Your task to perform on an android device: Open ESPN.com Image 0: 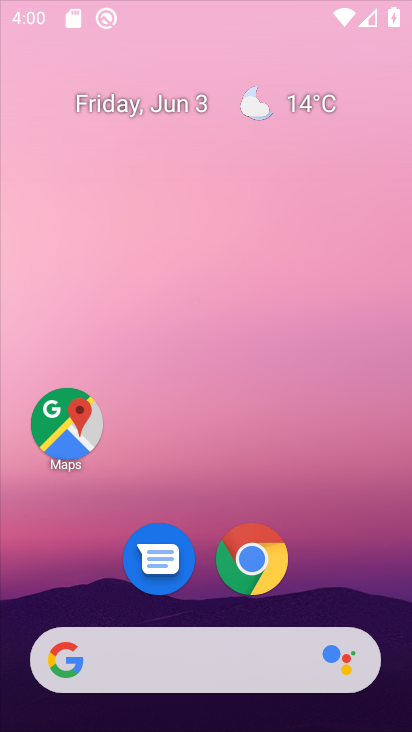
Step 0: click (319, 473)
Your task to perform on an android device: Open ESPN.com Image 1: 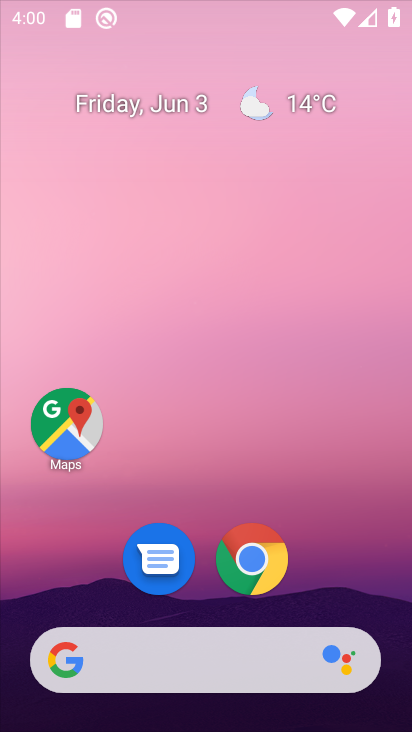
Step 1: drag from (217, 706) to (132, 25)
Your task to perform on an android device: Open ESPN.com Image 2: 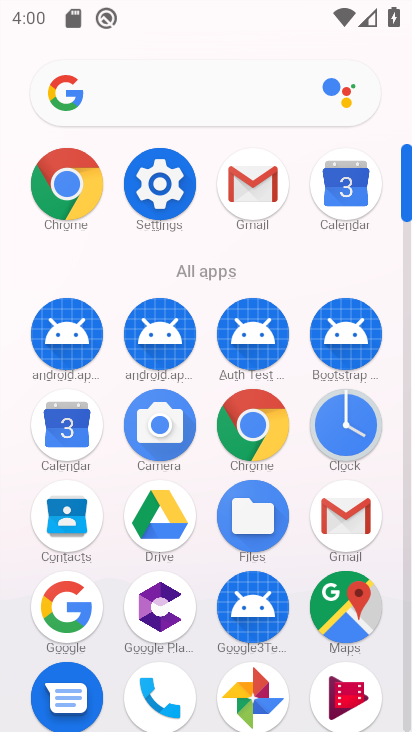
Step 2: click (62, 177)
Your task to perform on an android device: Open ESPN.com Image 3: 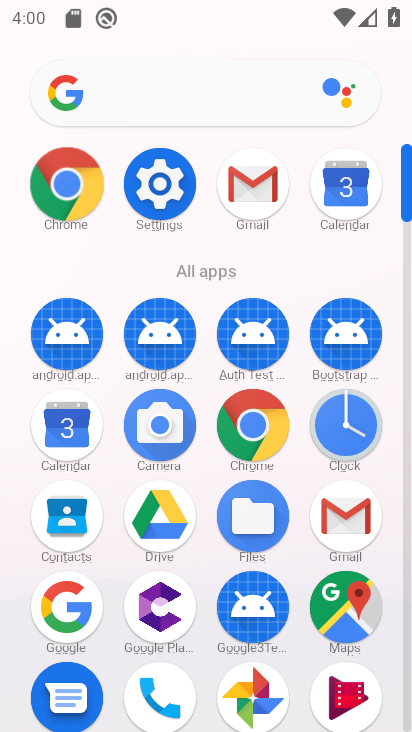
Step 3: click (62, 178)
Your task to perform on an android device: Open ESPN.com Image 4: 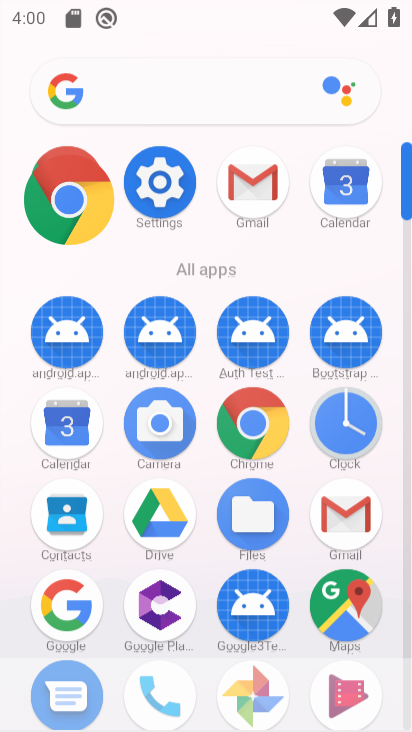
Step 4: click (64, 177)
Your task to perform on an android device: Open ESPN.com Image 5: 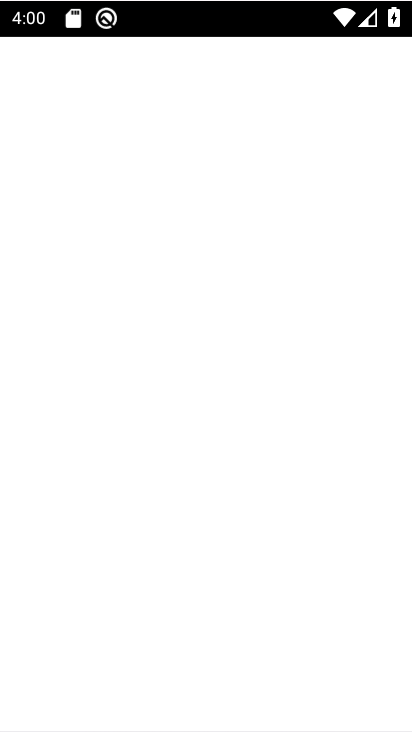
Step 5: click (64, 177)
Your task to perform on an android device: Open ESPN.com Image 6: 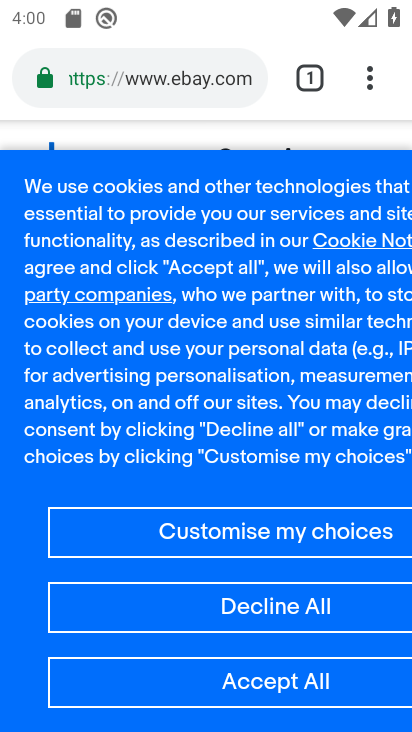
Step 6: press back button
Your task to perform on an android device: Open ESPN.com Image 7: 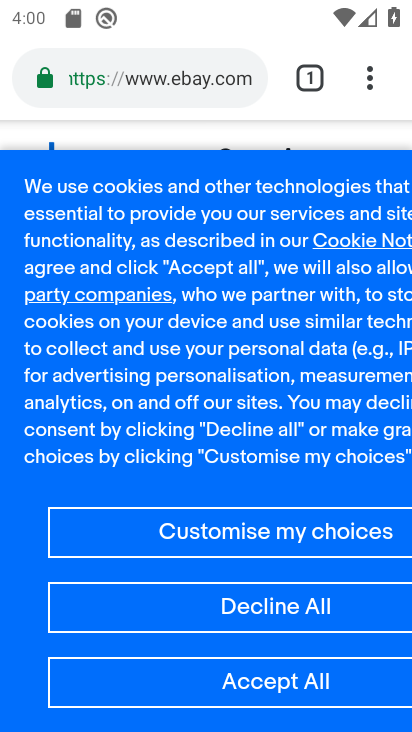
Step 7: press back button
Your task to perform on an android device: Open ESPN.com Image 8: 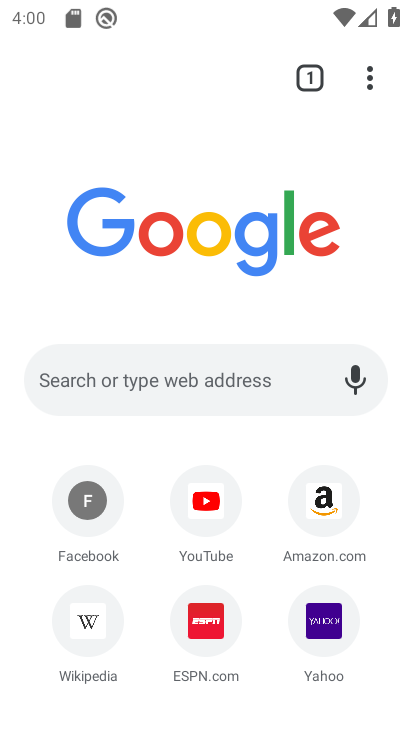
Step 8: press back button
Your task to perform on an android device: Open ESPN.com Image 9: 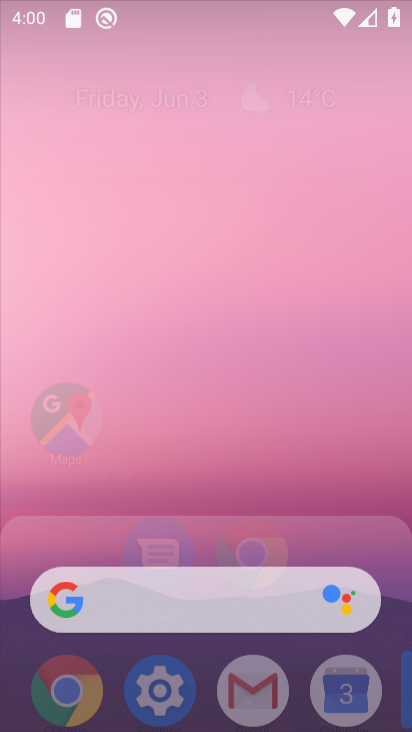
Step 9: press back button
Your task to perform on an android device: Open ESPN.com Image 10: 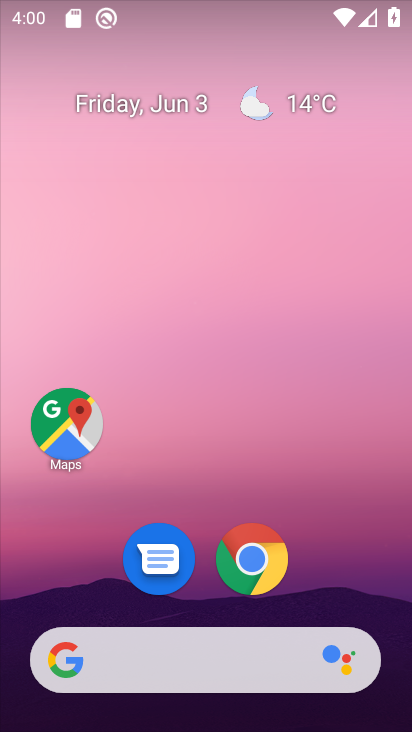
Step 10: drag from (199, 643) to (89, 0)
Your task to perform on an android device: Open ESPN.com Image 11: 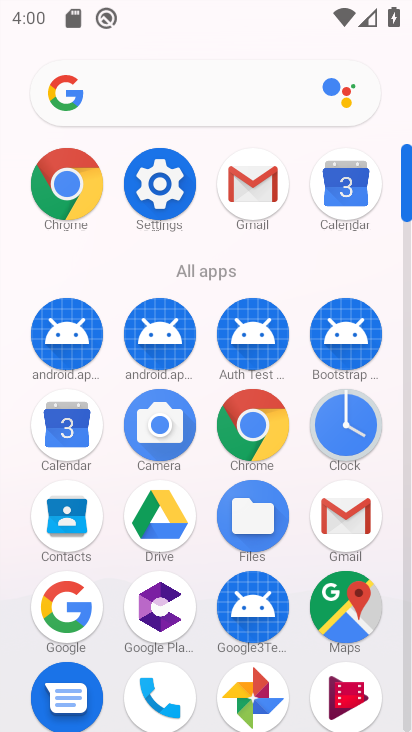
Step 11: drag from (194, 580) to (70, 0)
Your task to perform on an android device: Open ESPN.com Image 12: 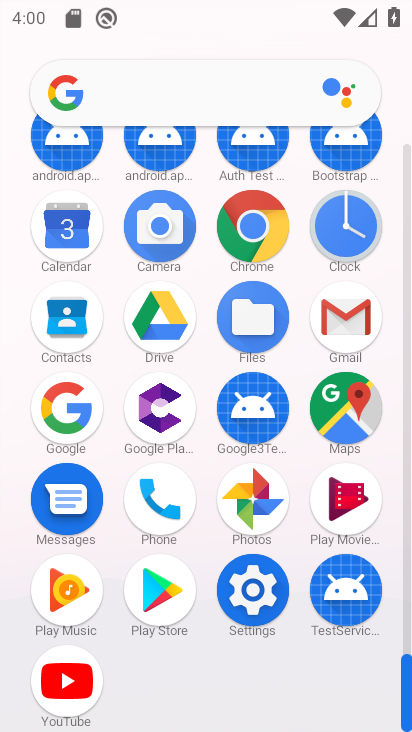
Step 12: drag from (252, 199) to (261, 264)
Your task to perform on an android device: Open ESPN.com Image 13: 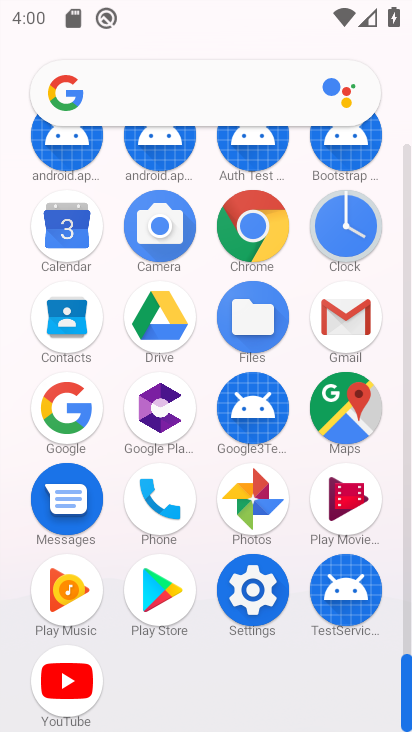
Step 13: click (250, 237)
Your task to perform on an android device: Open ESPN.com Image 14: 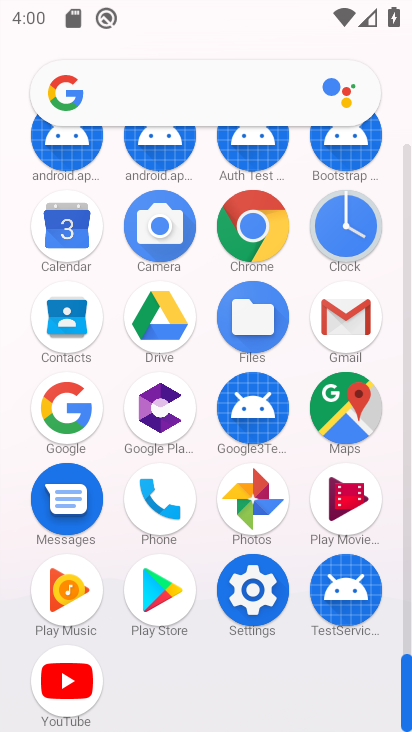
Step 14: click (250, 237)
Your task to perform on an android device: Open ESPN.com Image 15: 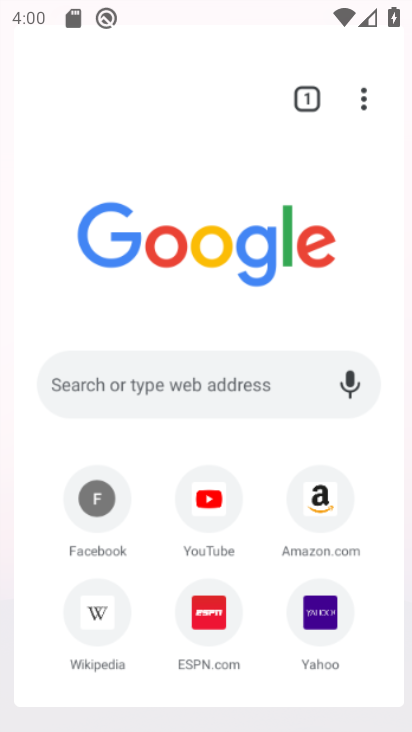
Step 15: click (249, 238)
Your task to perform on an android device: Open ESPN.com Image 16: 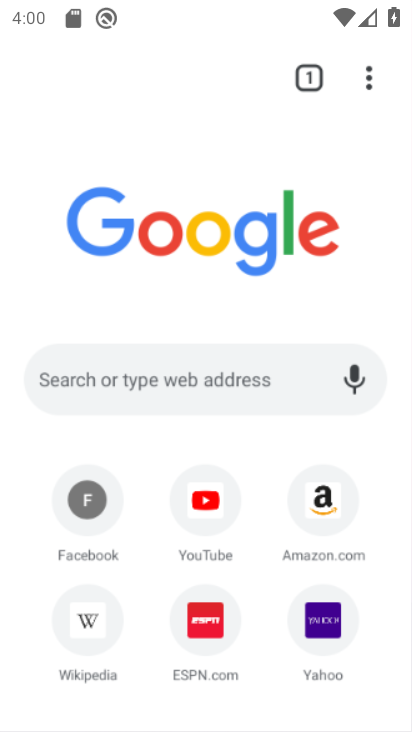
Step 16: click (248, 238)
Your task to perform on an android device: Open ESPN.com Image 17: 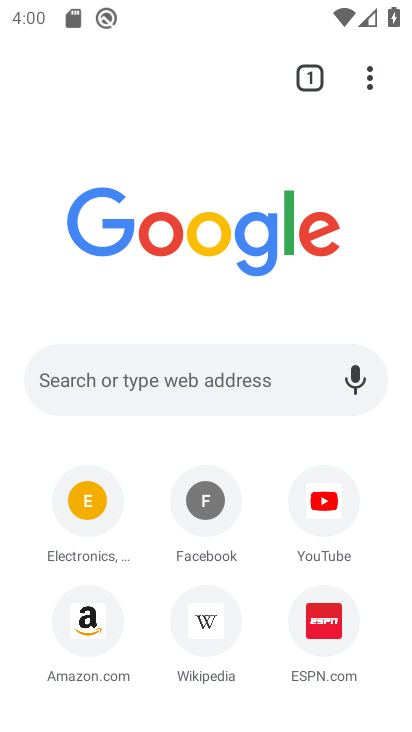
Step 17: click (323, 629)
Your task to perform on an android device: Open ESPN.com Image 18: 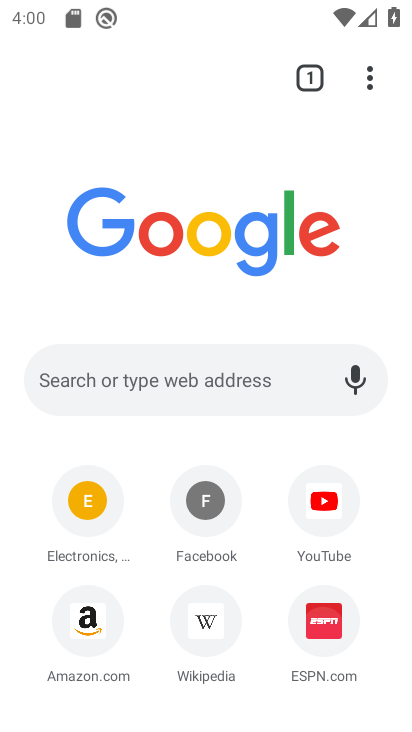
Step 18: click (324, 629)
Your task to perform on an android device: Open ESPN.com Image 19: 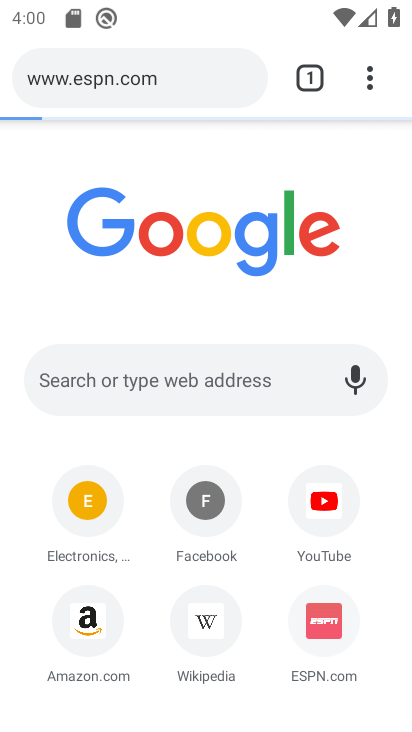
Step 19: click (324, 629)
Your task to perform on an android device: Open ESPN.com Image 20: 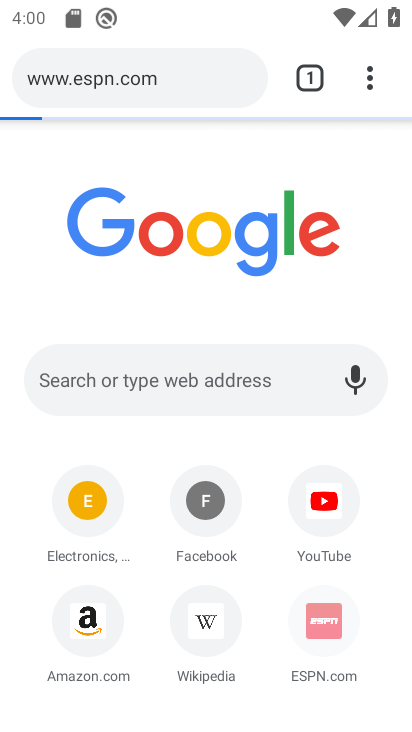
Step 20: click (324, 629)
Your task to perform on an android device: Open ESPN.com Image 21: 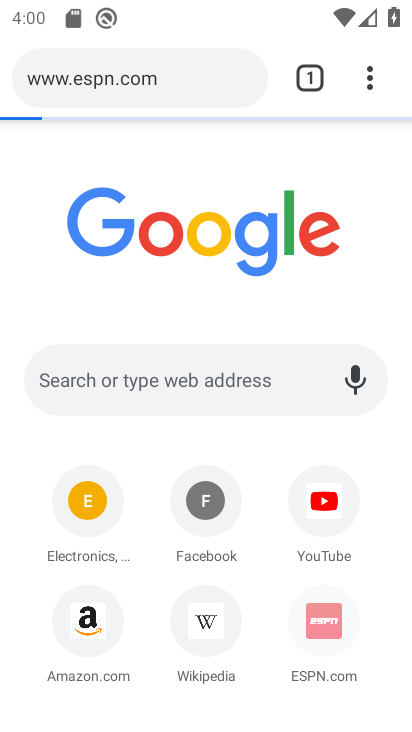
Step 21: click (326, 629)
Your task to perform on an android device: Open ESPN.com Image 22: 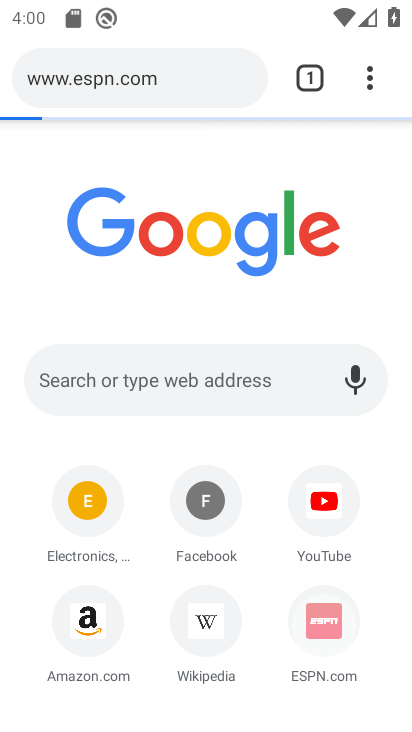
Step 22: click (325, 630)
Your task to perform on an android device: Open ESPN.com Image 23: 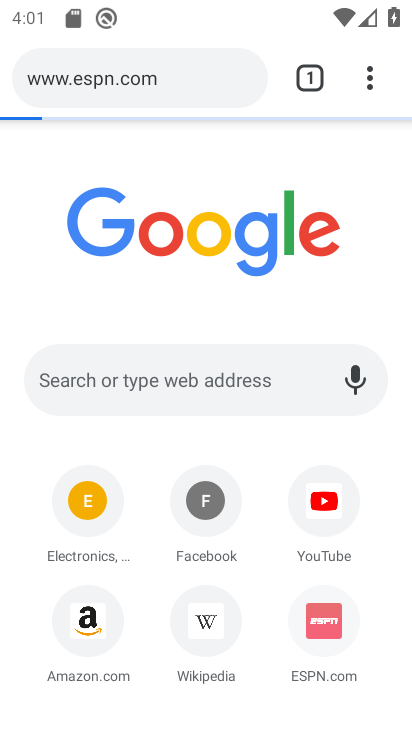
Step 23: click (321, 630)
Your task to perform on an android device: Open ESPN.com Image 24: 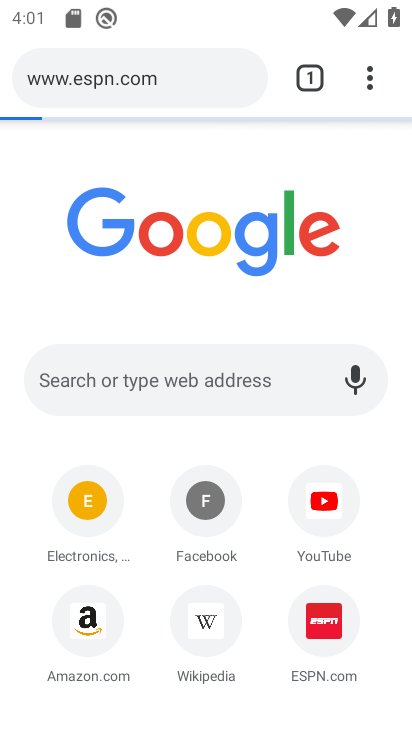
Step 24: click (321, 630)
Your task to perform on an android device: Open ESPN.com Image 25: 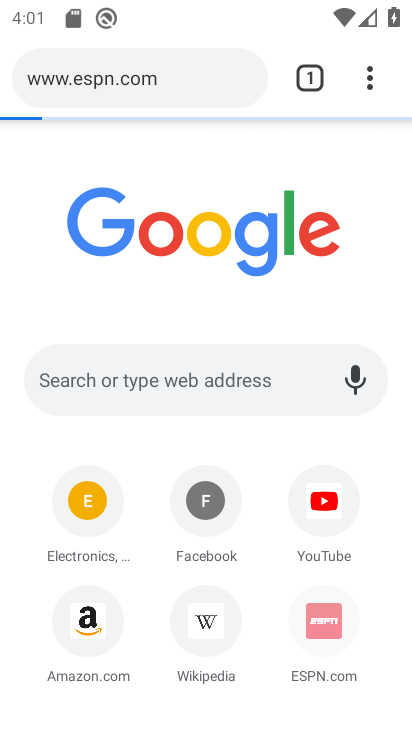
Step 25: click (320, 618)
Your task to perform on an android device: Open ESPN.com Image 26: 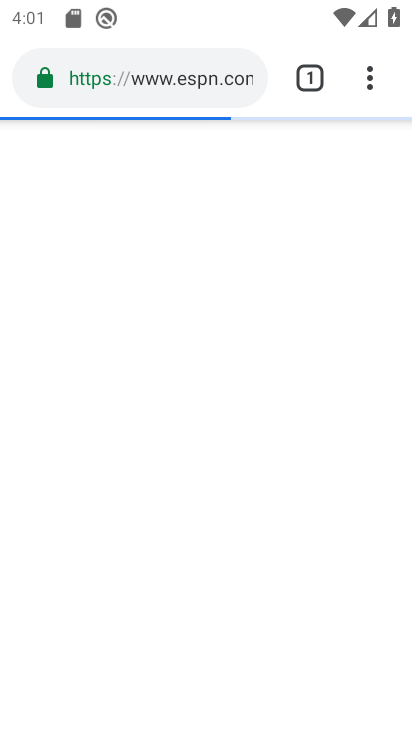
Step 26: task complete